Your task to perform on an android device: Open Chrome and go to settings Image 0: 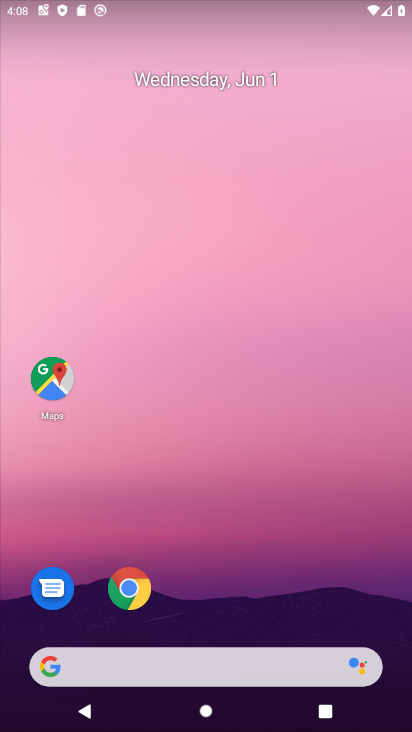
Step 0: click (132, 585)
Your task to perform on an android device: Open Chrome and go to settings Image 1: 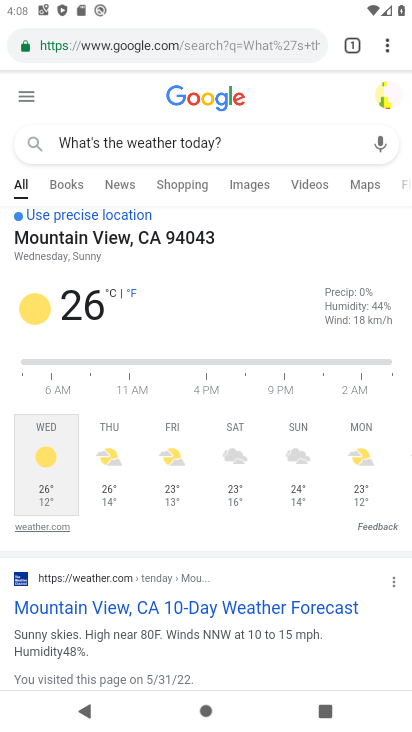
Step 1: click (392, 44)
Your task to perform on an android device: Open Chrome and go to settings Image 2: 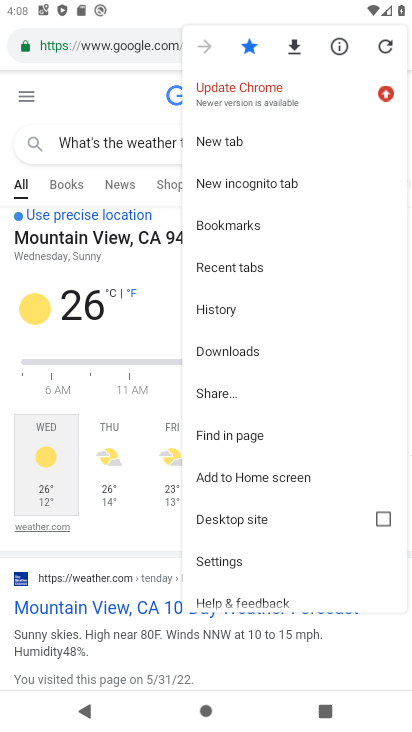
Step 2: click (266, 570)
Your task to perform on an android device: Open Chrome and go to settings Image 3: 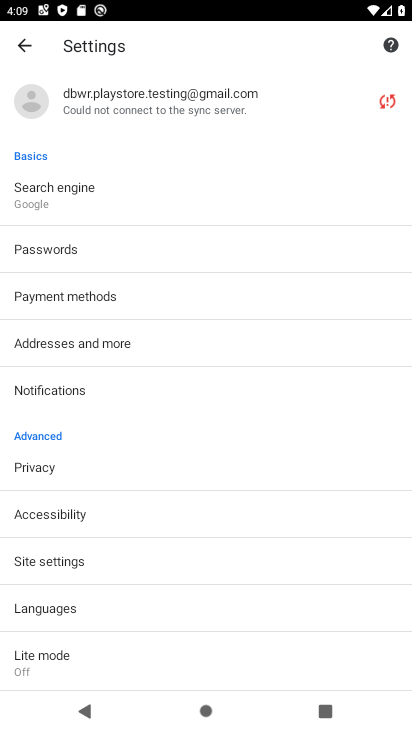
Step 3: task complete